Your task to perform on an android device: Turn off the flashlight Image 0: 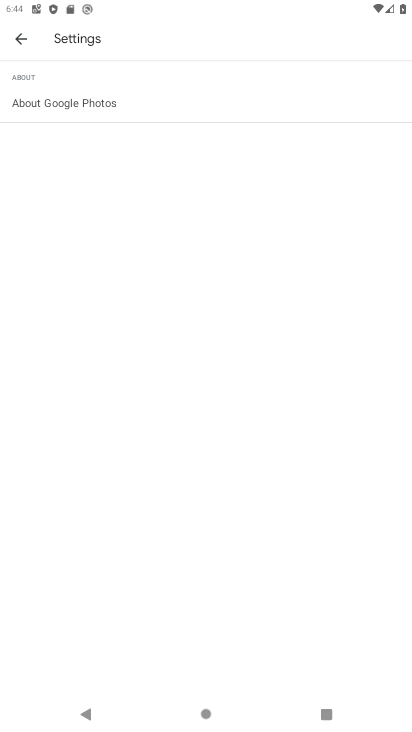
Step 0: press home button
Your task to perform on an android device: Turn off the flashlight Image 1: 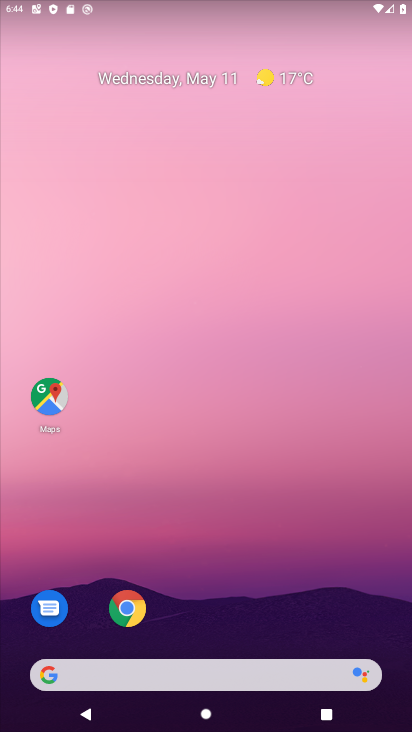
Step 1: drag from (270, 601) to (280, 9)
Your task to perform on an android device: Turn off the flashlight Image 2: 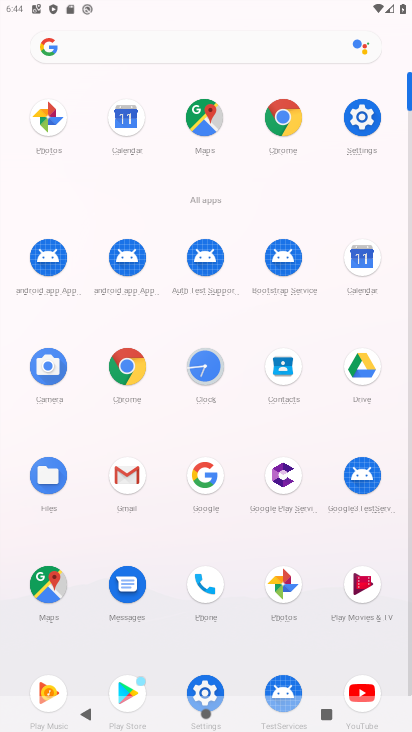
Step 2: click (353, 142)
Your task to perform on an android device: Turn off the flashlight Image 3: 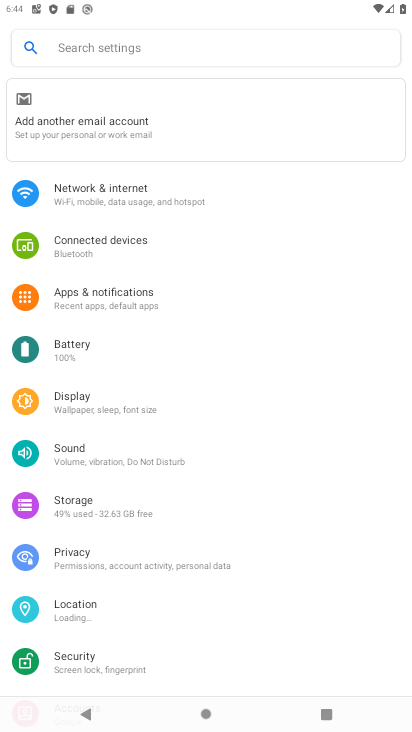
Step 3: click (258, 431)
Your task to perform on an android device: Turn off the flashlight Image 4: 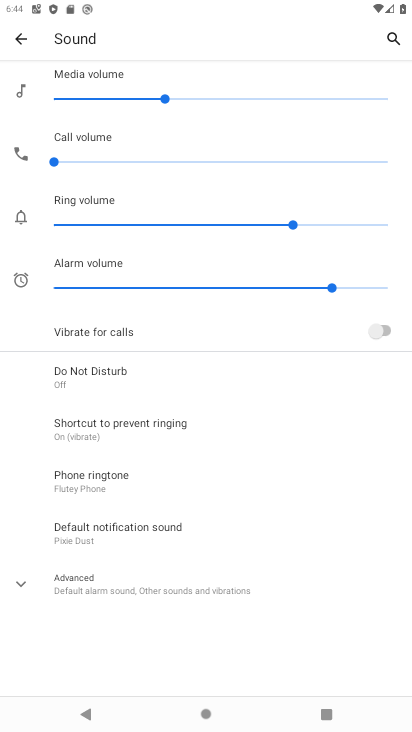
Step 4: task complete